Your task to perform on an android device: Search for vegetarian restaurants on Maps Image 0: 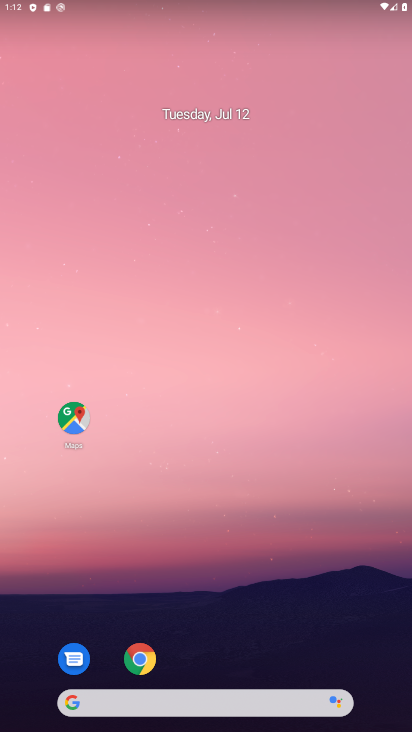
Step 0: drag from (208, 687) to (309, 169)
Your task to perform on an android device: Search for vegetarian restaurants on Maps Image 1: 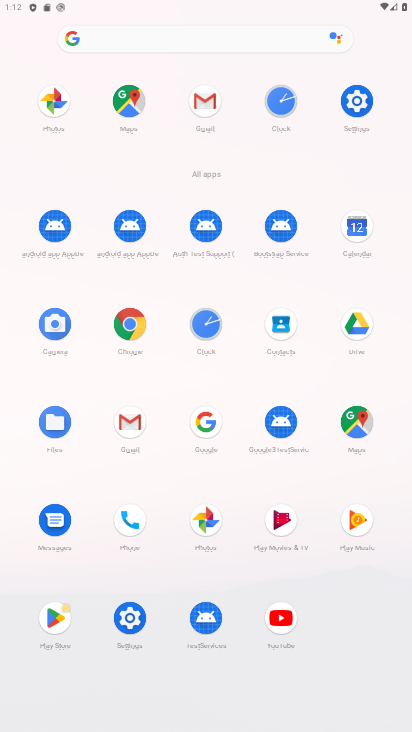
Step 1: click (349, 425)
Your task to perform on an android device: Search for vegetarian restaurants on Maps Image 2: 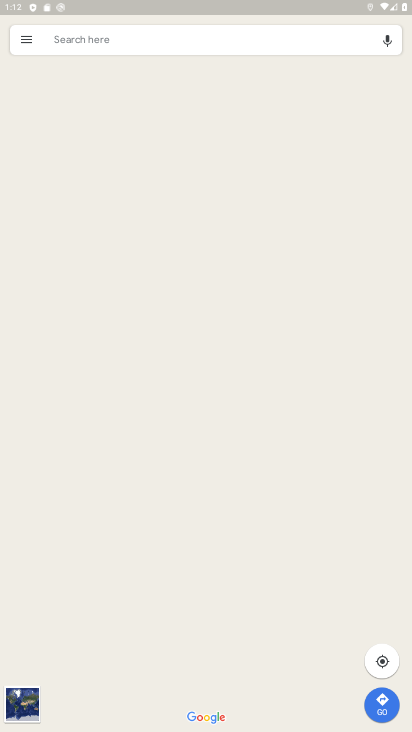
Step 2: click (86, 42)
Your task to perform on an android device: Search for vegetarian restaurants on Maps Image 3: 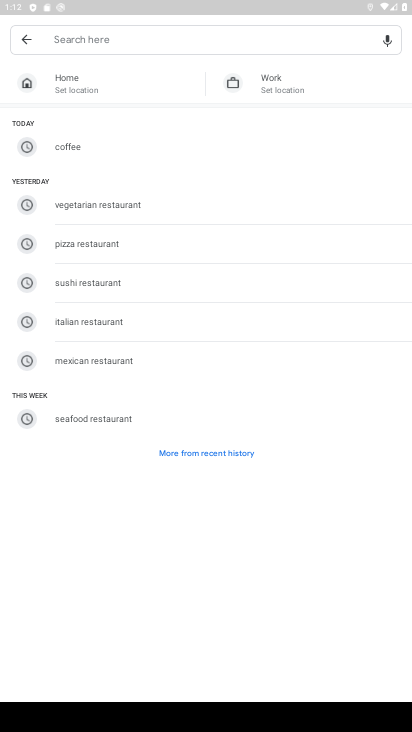
Step 3: type "vegetarian restaurants"
Your task to perform on an android device: Search for vegetarian restaurants on Maps Image 4: 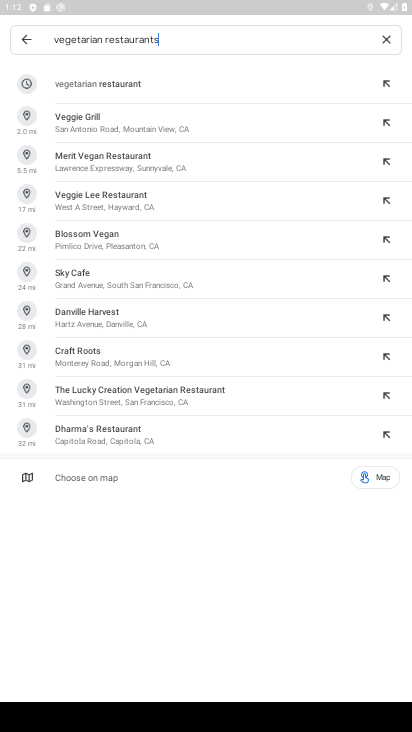
Step 4: click (148, 101)
Your task to perform on an android device: Search for vegetarian restaurants on Maps Image 5: 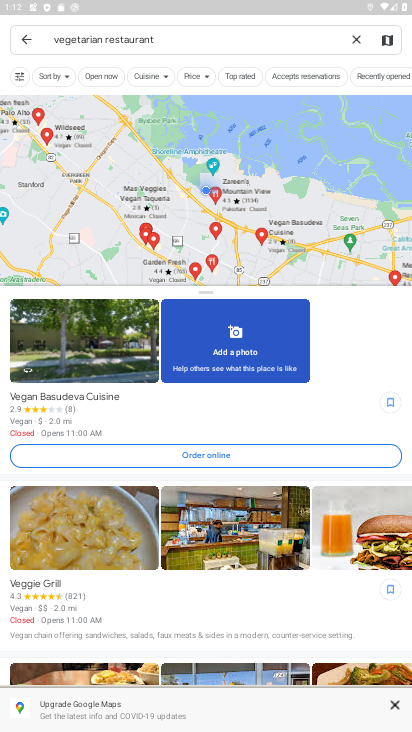
Step 5: task complete